Your task to perform on an android device: Open the phone app and click the voicemail tab. Image 0: 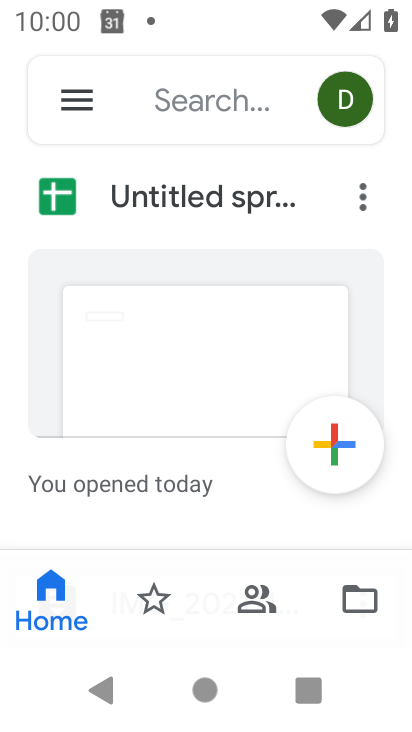
Step 0: press home button
Your task to perform on an android device: Open the phone app and click the voicemail tab. Image 1: 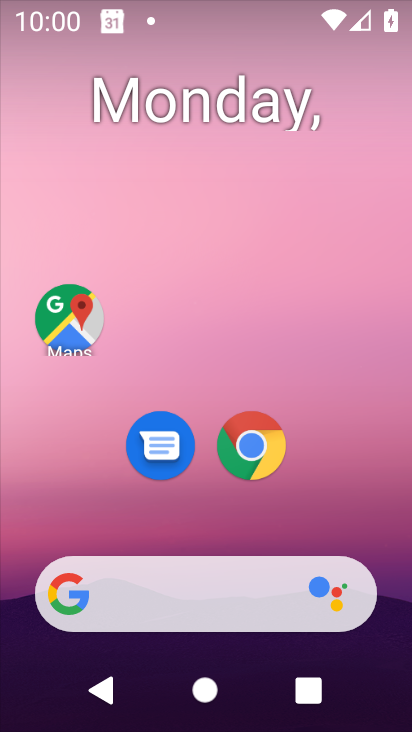
Step 1: drag from (228, 377) to (221, 10)
Your task to perform on an android device: Open the phone app and click the voicemail tab. Image 2: 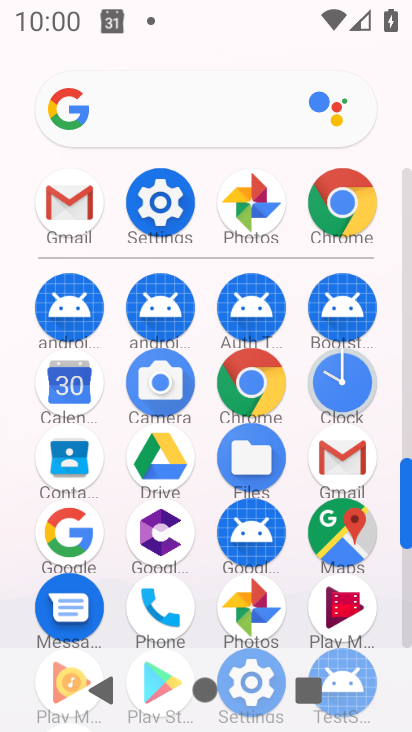
Step 2: drag from (279, 621) to (281, 219)
Your task to perform on an android device: Open the phone app and click the voicemail tab. Image 3: 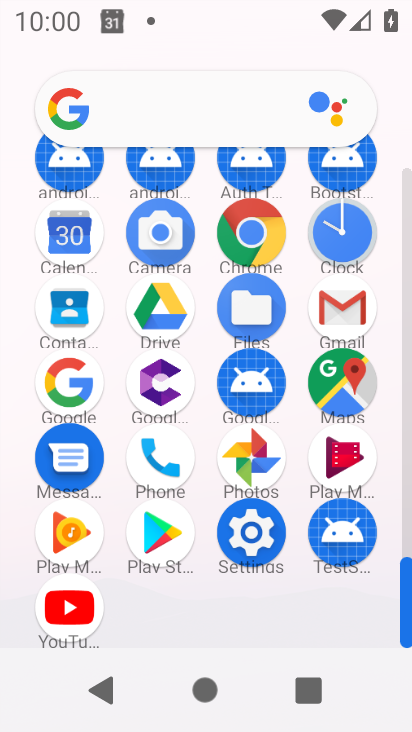
Step 3: click (170, 472)
Your task to perform on an android device: Open the phone app and click the voicemail tab. Image 4: 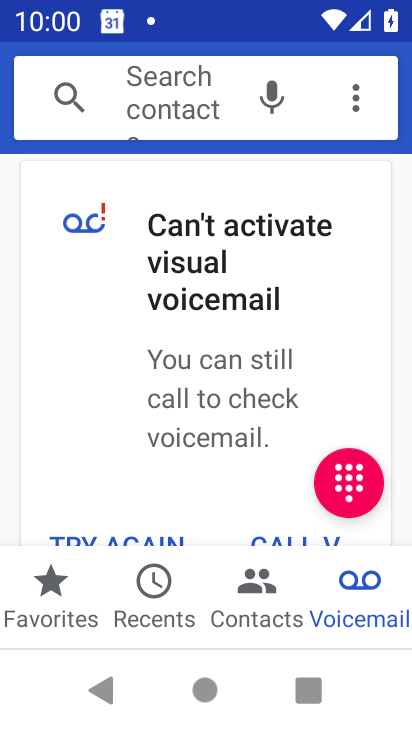
Step 4: task complete